Your task to perform on an android device: Go to battery settings Image 0: 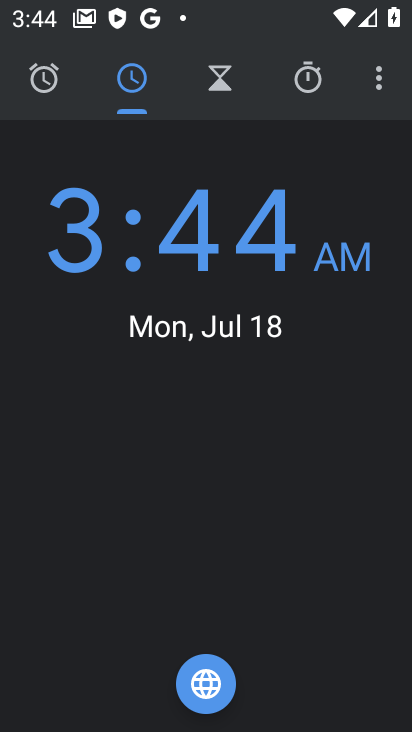
Step 0: press back button
Your task to perform on an android device: Go to battery settings Image 1: 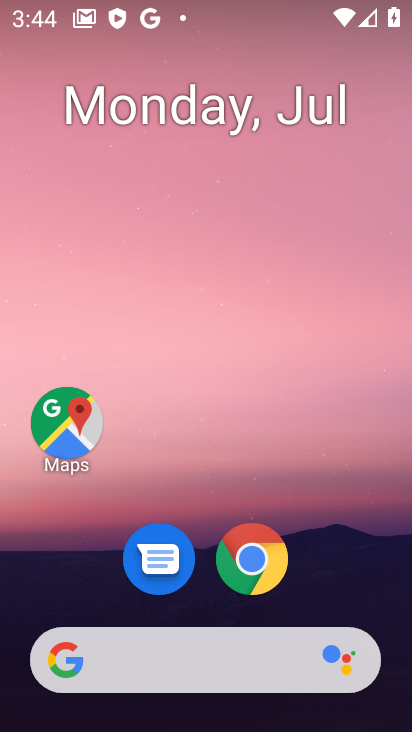
Step 1: drag from (115, 512) to (204, 9)
Your task to perform on an android device: Go to battery settings Image 2: 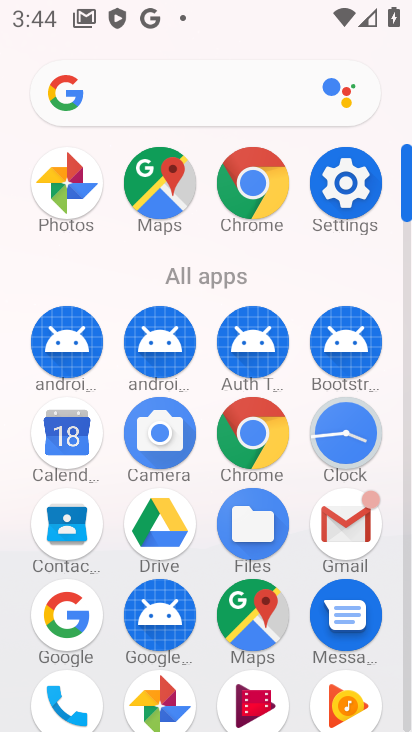
Step 2: click (336, 177)
Your task to perform on an android device: Go to battery settings Image 3: 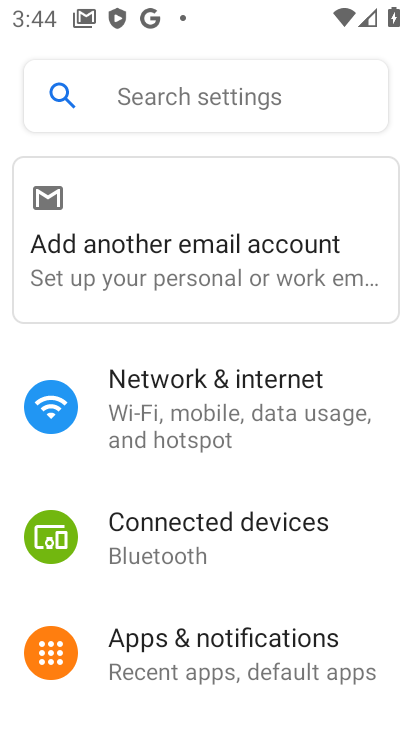
Step 3: drag from (211, 615) to (254, 138)
Your task to perform on an android device: Go to battery settings Image 4: 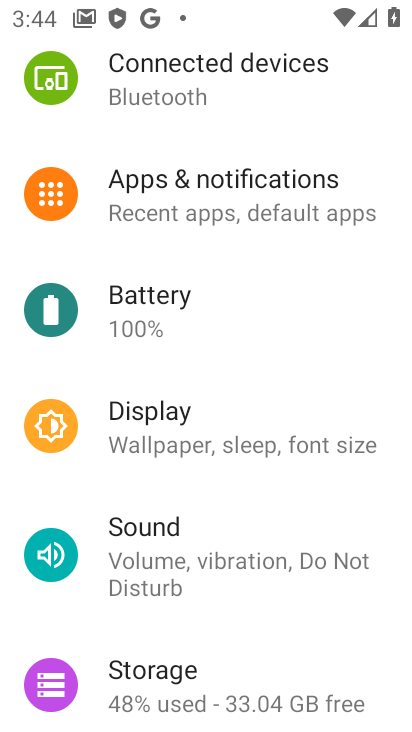
Step 4: click (160, 313)
Your task to perform on an android device: Go to battery settings Image 5: 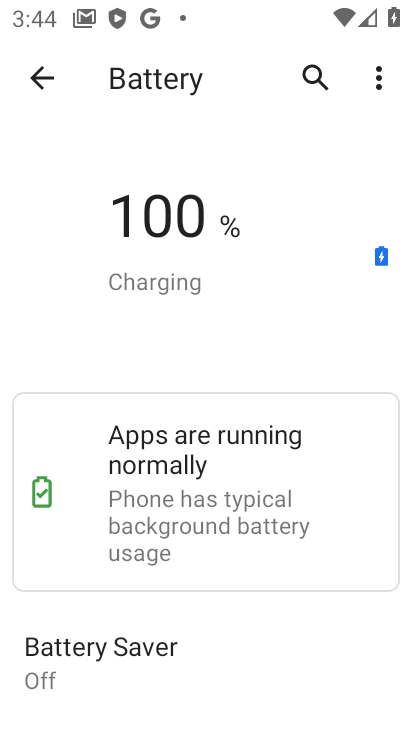
Step 5: task complete